Your task to perform on an android device: Find coffee shops on Maps Image 0: 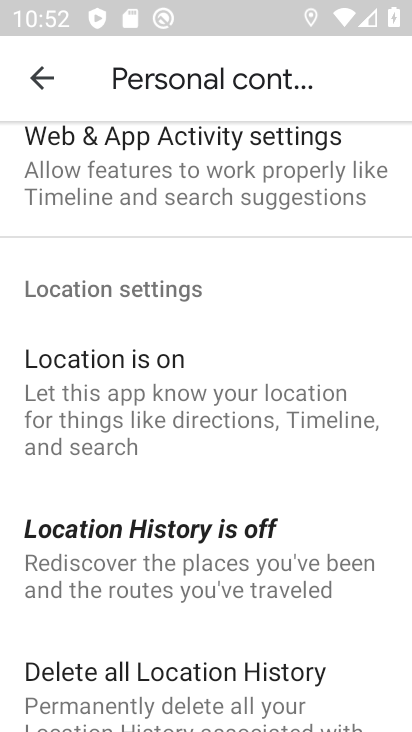
Step 0: press back button
Your task to perform on an android device: Find coffee shops on Maps Image 1: 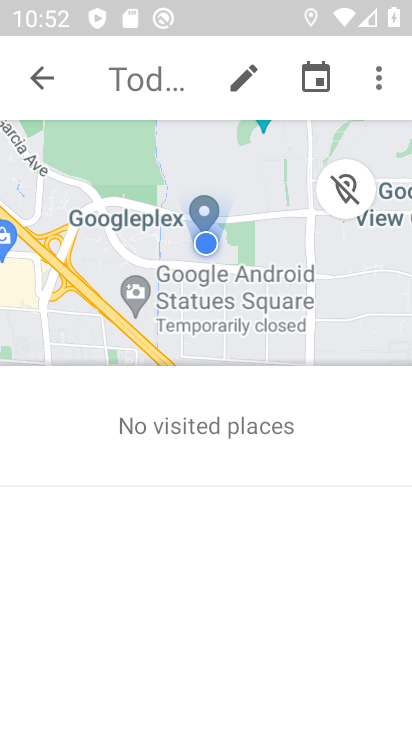
Step 1: press back button
Your task to perform on an android device: Find coffee shops on Maps Image 2: 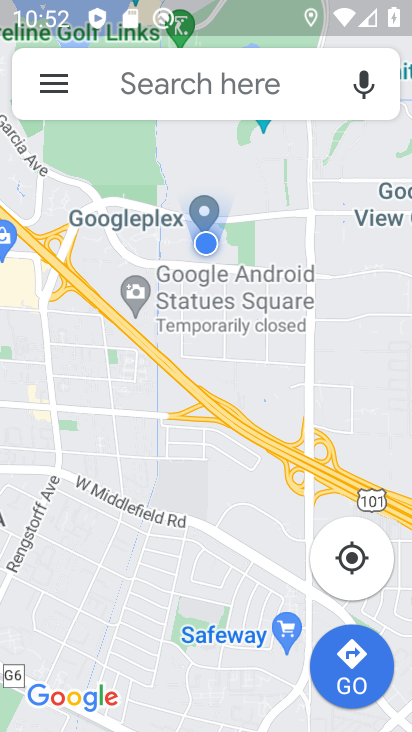
Step 2: click (228, 81)
Your task to perform on an android device: Find coffee shops on Maps Image 3: 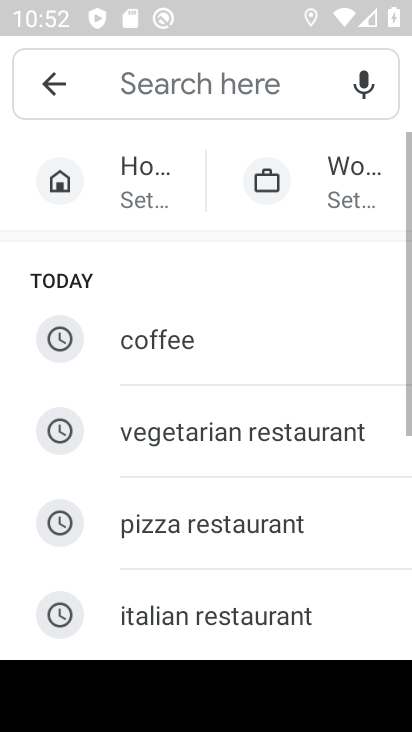
Step 3: click (240, 354)
Your task to perform on an android device: Find coffee shops on Maps Image 4: 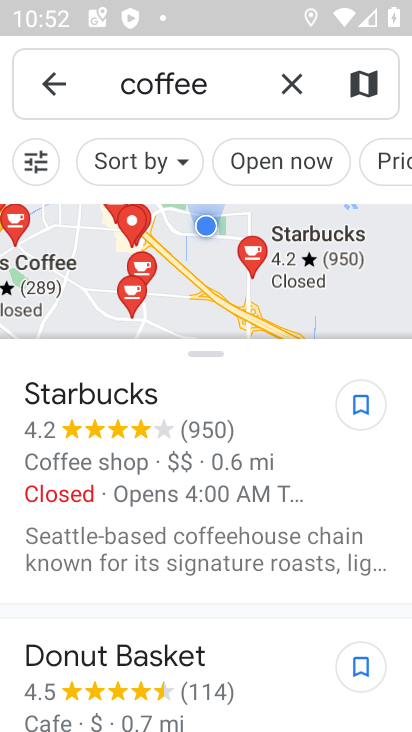
Step 4: task complete